Your task to perform on an android device: Open my contact list Image 0: 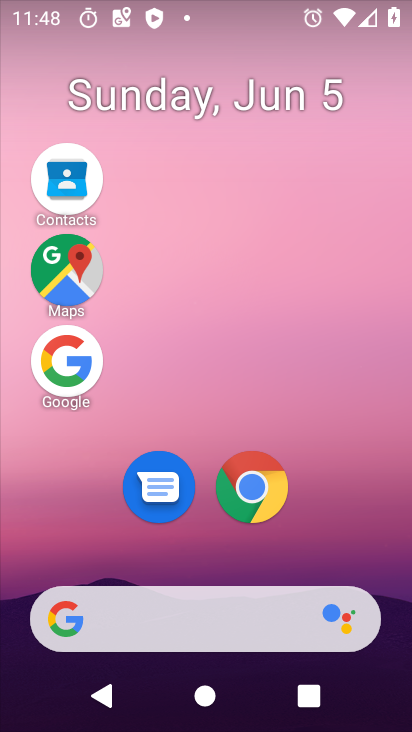
Step 0: drag from (236, 604) to (236, 125)
Your task to perform on an android device: Open my contact list Image 1: 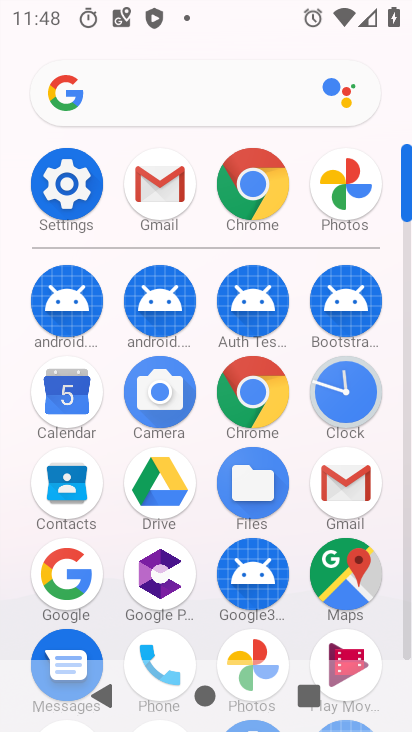
Step 1: click (81, 489)
Your task to perform on an android device: Open my contact list Image 2: 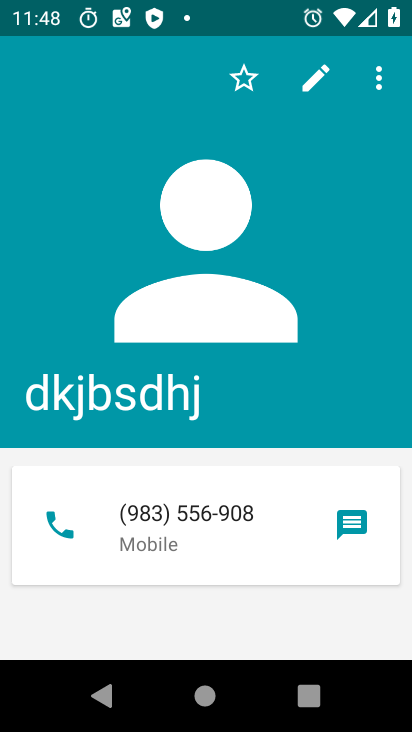
Step 2: press back button
Your task to perform on an android device: Open my contact list Image 3: 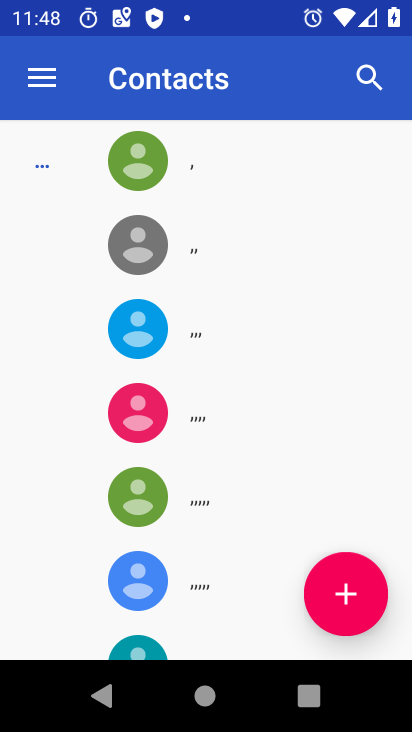
Step 3: click (374, 597)
Your task to perform on an android device: Open my contact list Image 4: 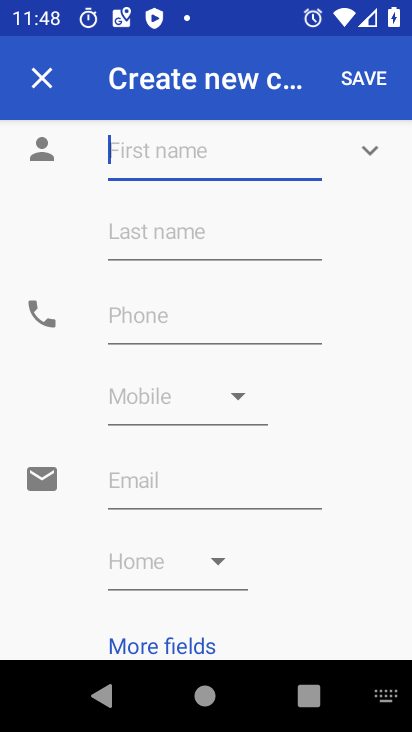
Step 4: type "kuhjfg"
Your task to perform on an android device: Open my contact list Image 5: 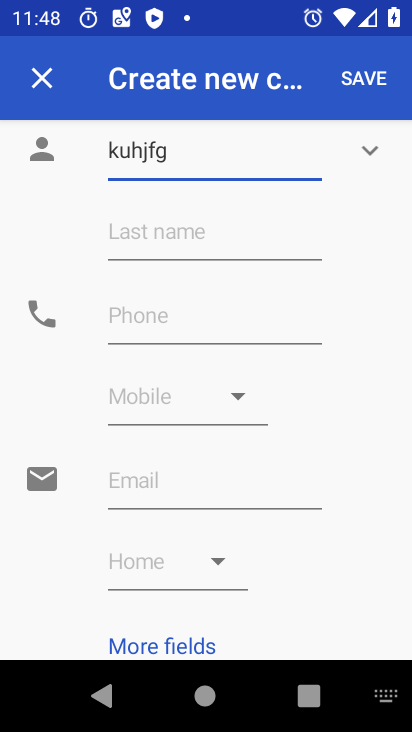
Step 5: click (222, 320)
Your task to perform on an android device: Open my contact list Image 6: 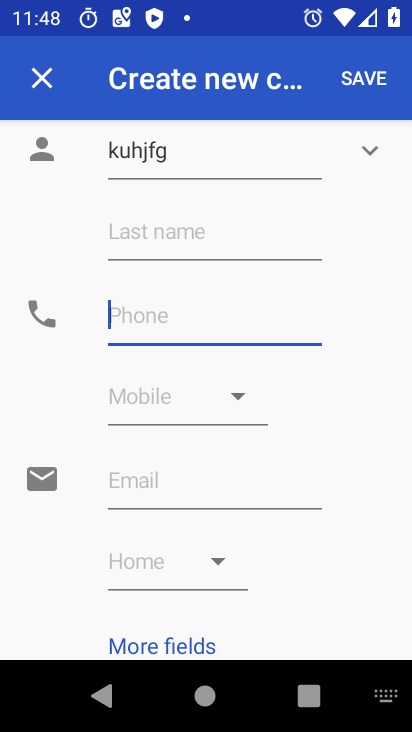
Step 6: type "09767908"
Your task to perform on an android device: Open my contact list Image 7: 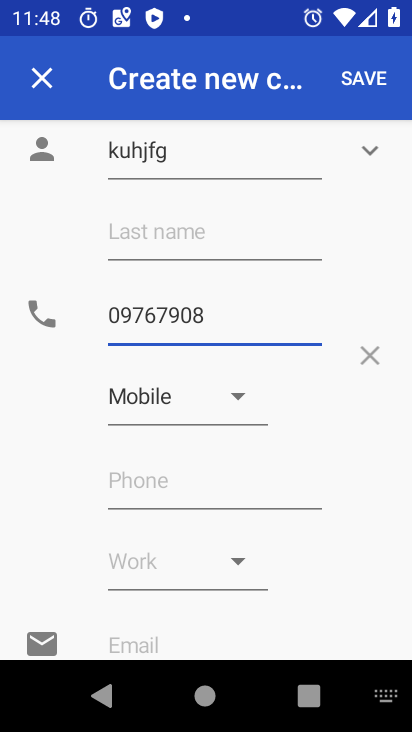
Step 7: click (378, 85)
Your task to perform on an android device: Open my contact list Image 8: 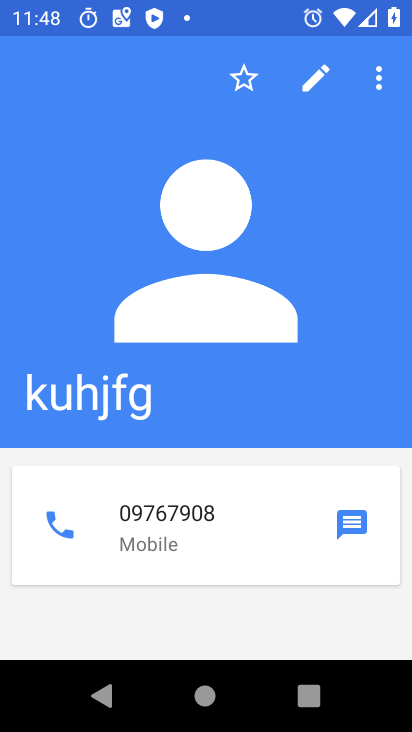
Step 8: task complete